Your task to perform on an android device: turn off notifications in google photos Image 0: 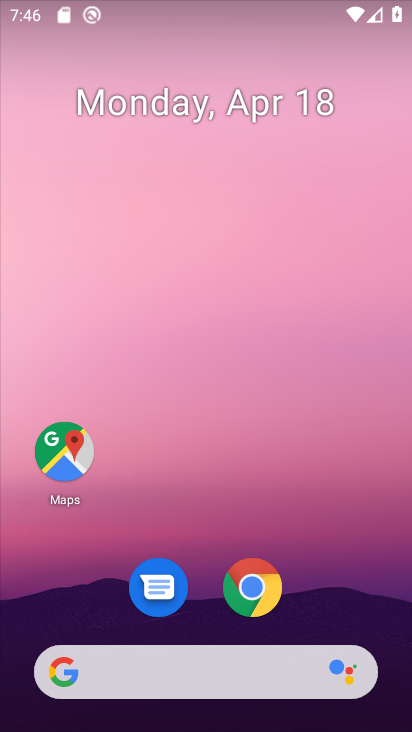
Step 0: drag from (166, 14) to (188, 495)
Your task to perform on an android device: turn off notifications in google photos Image 1: 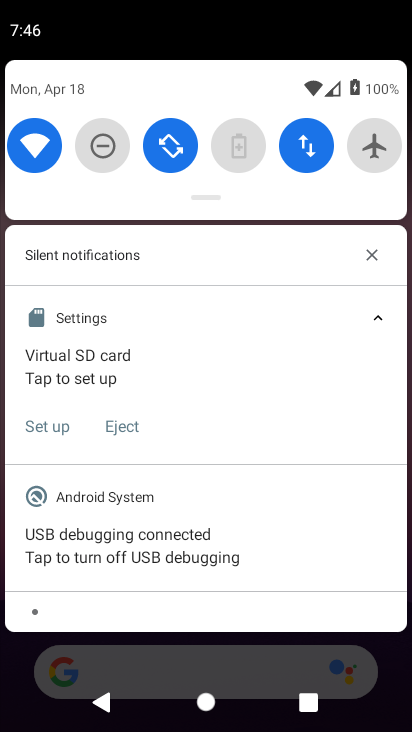
Step 1: drag from (192, 72) to (159, 451)
Your task to perform on an android device: turn off notifications in google photos Image 2: 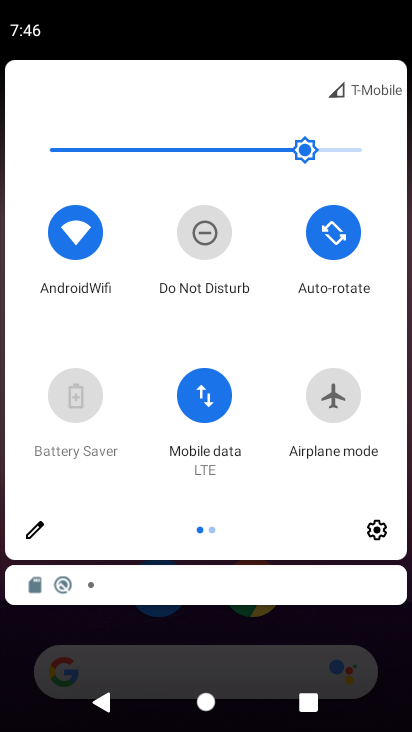
Step 2: click (385, 525)
Your task to perform on an android device: turn off notifications in google photos Image 3: 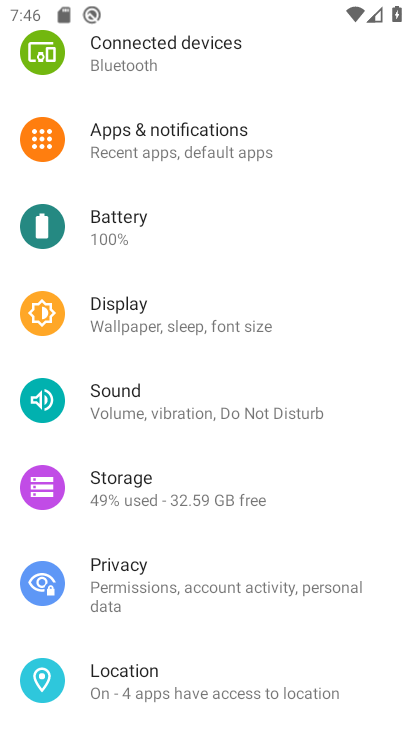
Step 3: click (185, 160)
Your task to perform on an android device: turn off notifications in google photos Image 4: 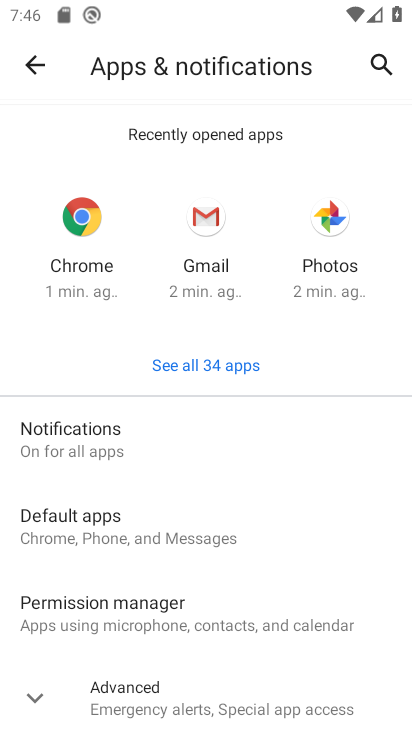
Step 4: click (331, 216)
Your task to perform on an android device: turn off notifications in google photos Image 5: 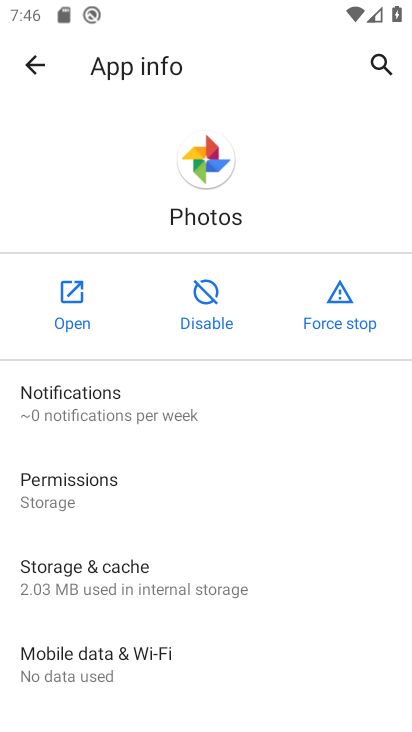
Step 5: click (99, 398)
Your task to perform on an android device: turn off notifications in google photos Image 6: 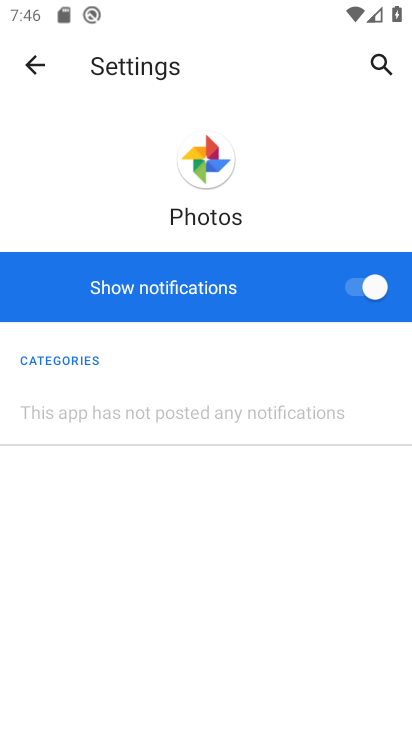
Step 6: click (360, 300)
Your task to perform on an android device: turn off notifications in google photos Image 7: 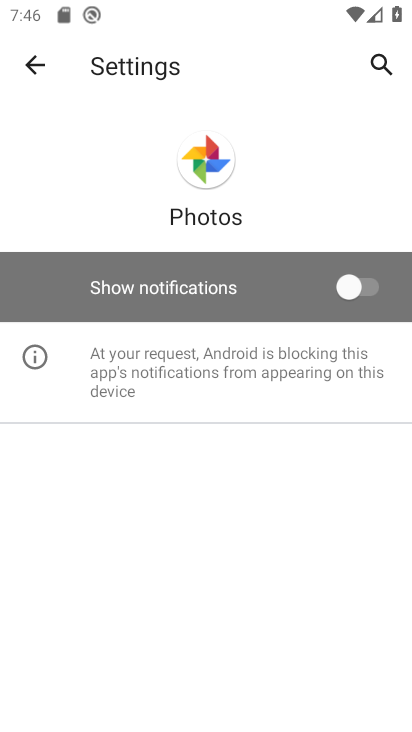
Step 7: task complete